Your task to perform on an android device: Open Yahoo.com Image 0: 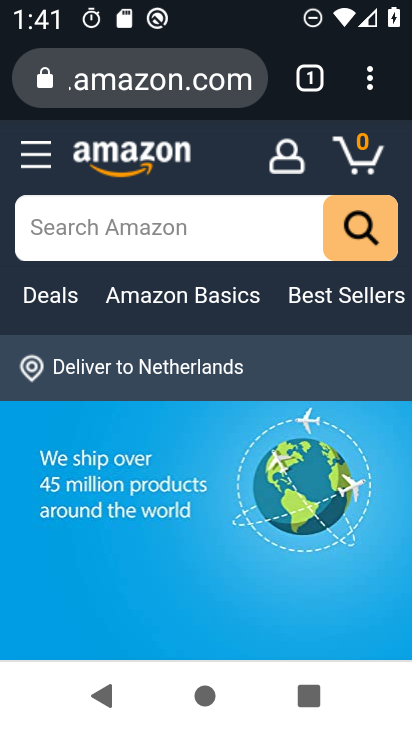
Step 0: press home button
Your task to perform on an android device: Open Yahoo.com Image 1: 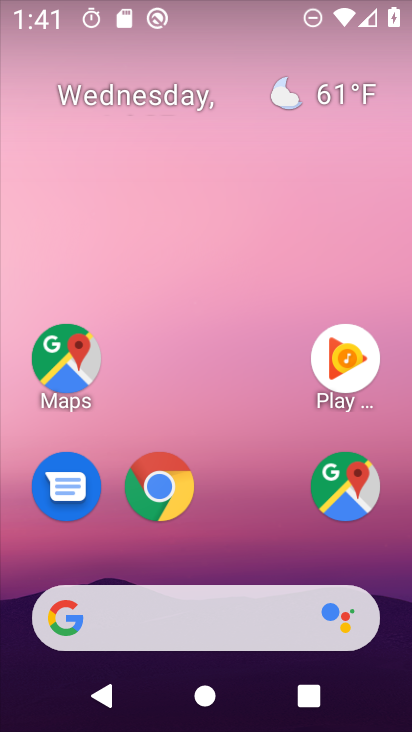
Step 1: drag from (259, 549) to (254, 167)
Your task to perform on an android device: Open Yahoo.com Image 2: 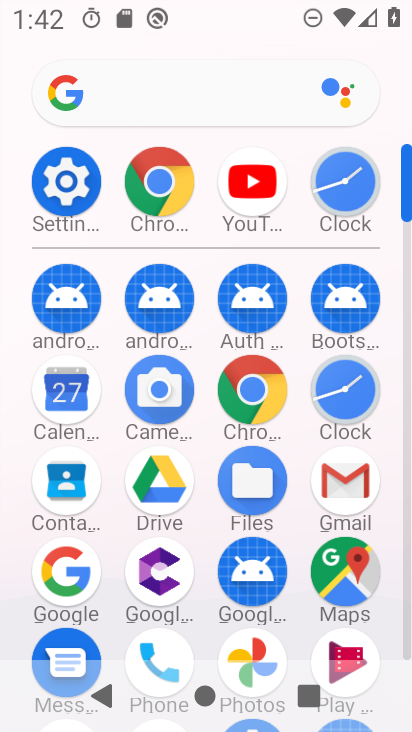
Step 2: click (254, 395)
Your task to perform on an android device: Open Yahoo.com Image 3: 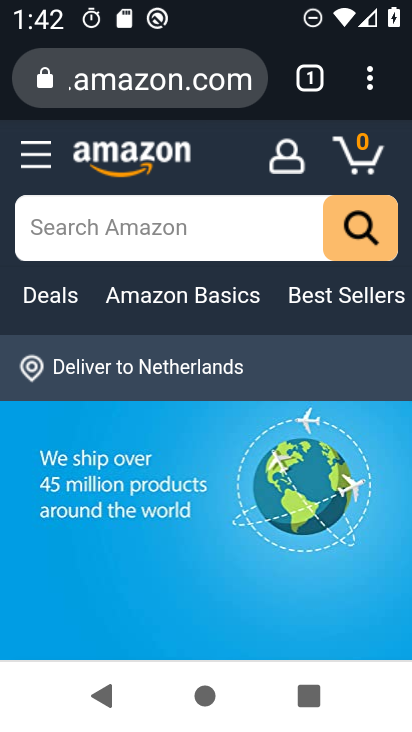
Step 3: click (204, 84)
Your task to perform on an android device: Open Yahoo.com Image 4: 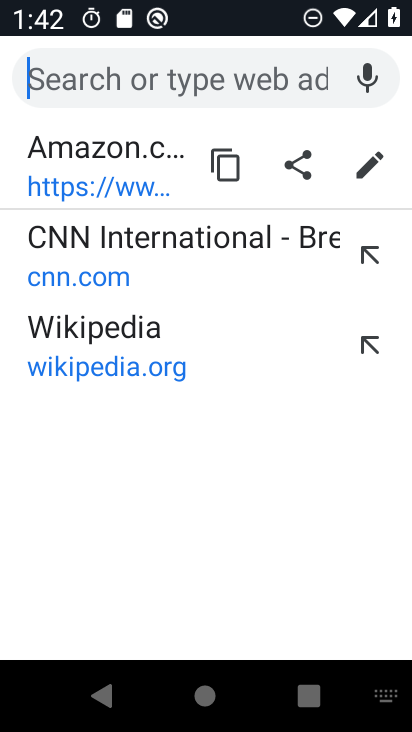
Step 4: type "yahoo.com"
Your task to perform on an android device: Open Yahoo.com Image 5: 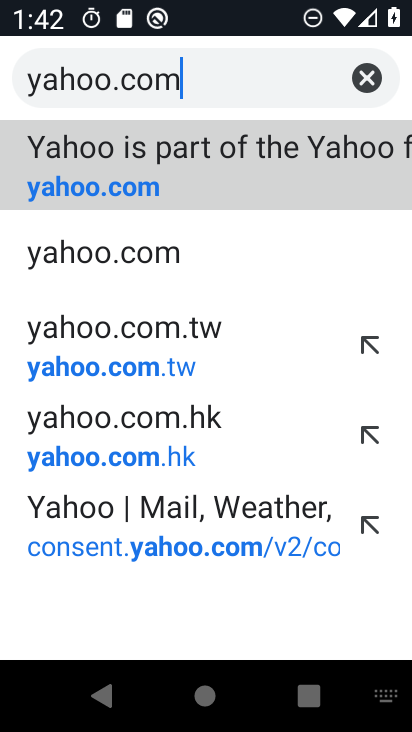
Step 5: click (245, 165)
Your task to perform on an android device: Open Yahoo.com Image 6: 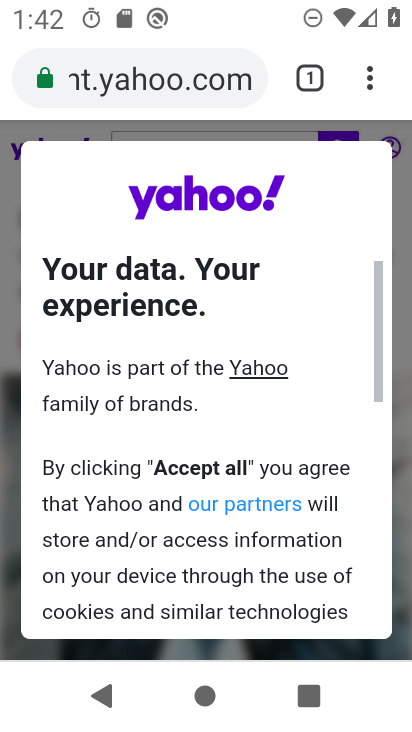
Step 6: task complete